Your task to perform on an android device: Open Wikipedia Image 0: 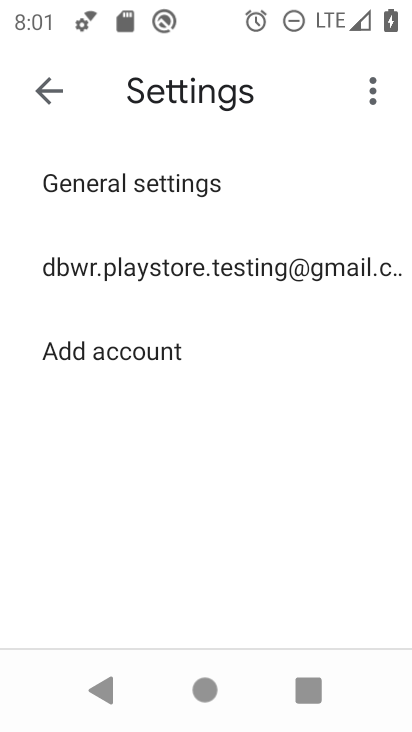
Step 0: press home button
Your task to perform on an android device: Open Wikipedia Image 1: 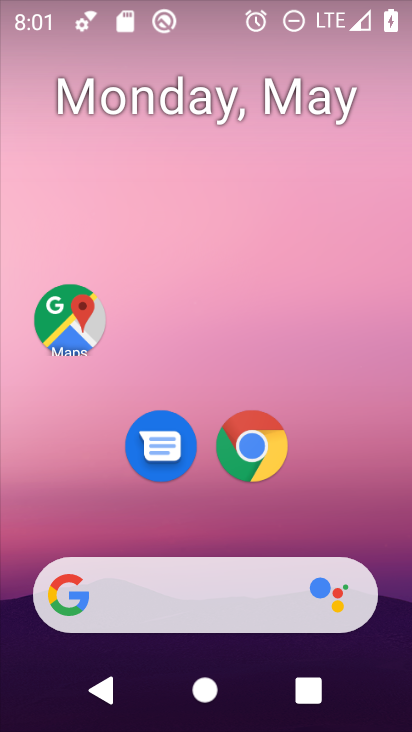
Step 1: click (254, 444)
Your task to perform on an android device: Open Wikipedia Image 2: 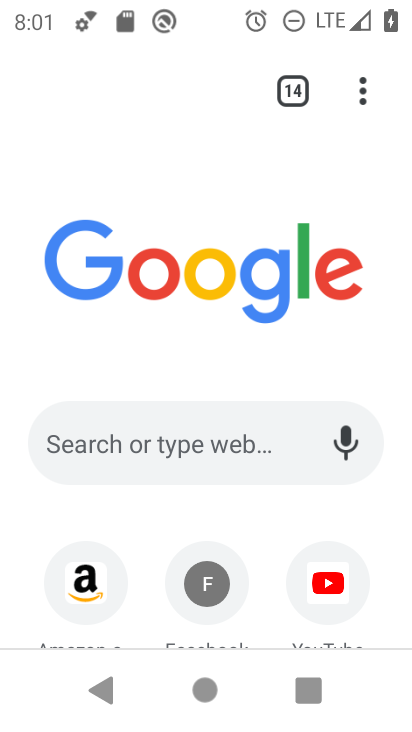
Step 2: drag from (195, 364) to (145, 94)
Your task to perform on an android device: Open Wikipedia Image 3: 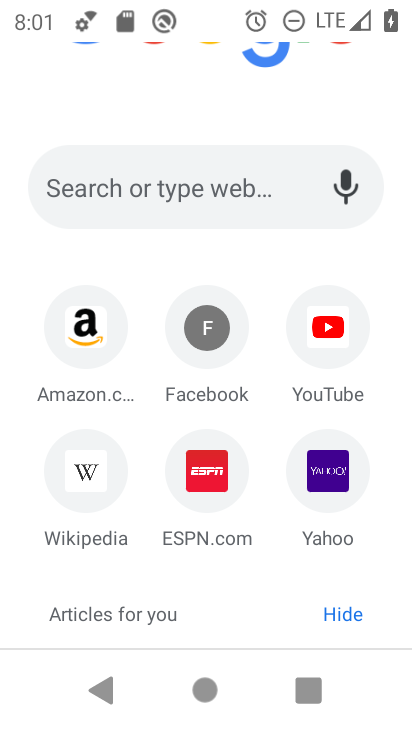
Step 3: click (84, 464)
Your task to perform on an android device: Open Wikipedia Image 4: 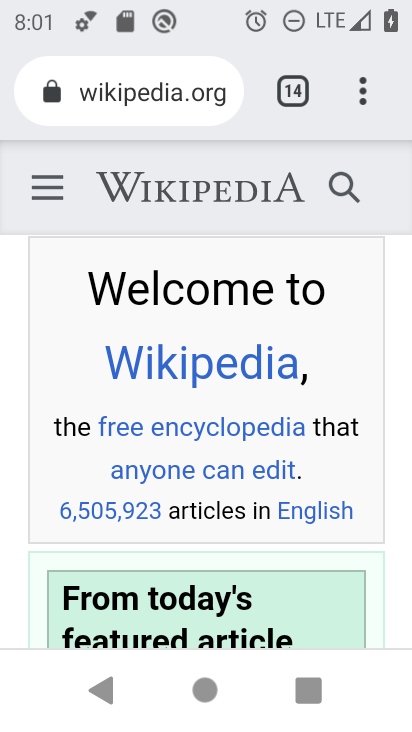
Step 4: task complete